Your task to perform on an android device: stop showing notifications on the lock screen Image 0: 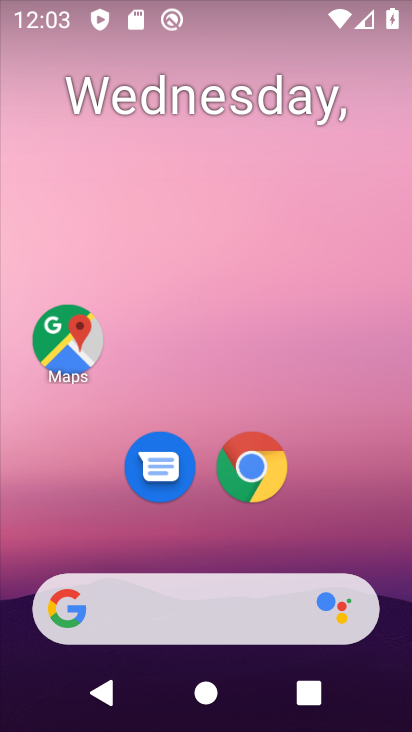
Step 0: drag from (220, 536) to (270, 58)
Your task to perform on an android device: stop showing notifications on the lock screen Image 1: 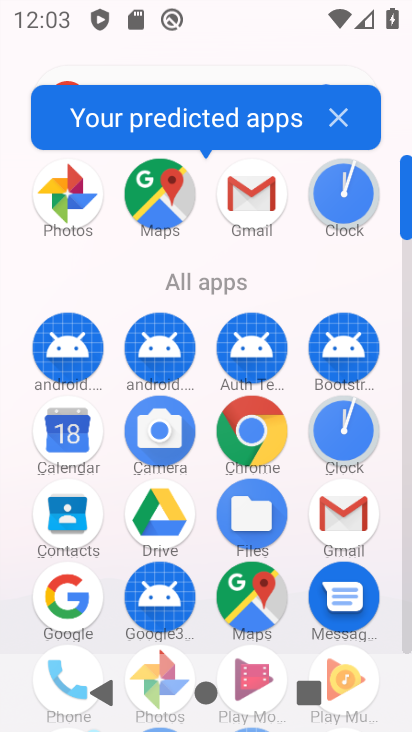
Step 1: drag from (242, 587) to (267, 214)
Your task to perform on an android device: stop showing notifications on the lock screen Image 2: 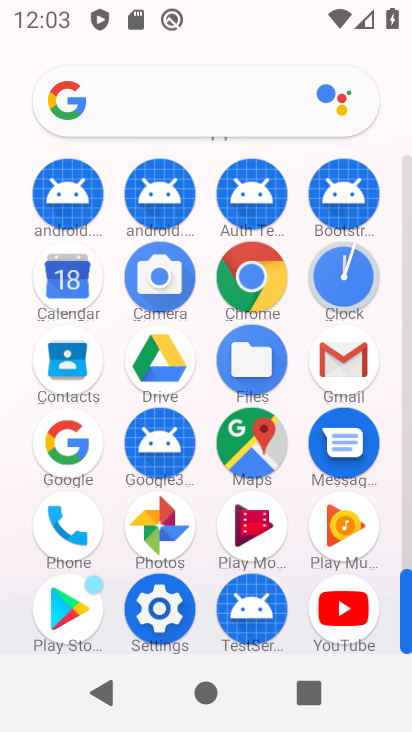
Step 2: click (164, 618)
Your task to perform on an android device: stop showing notifications on the lock screen Image 3: 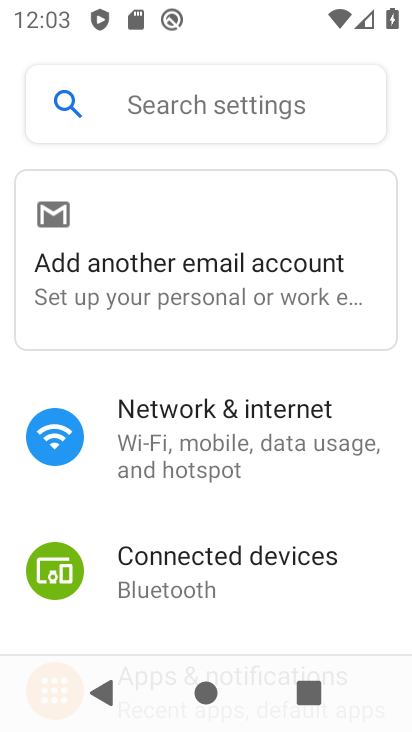
Step 3: drag from (222, 557) to (260, 261)
Your task to perform on an android device: stop showing notifications on the lock screen Image 4: 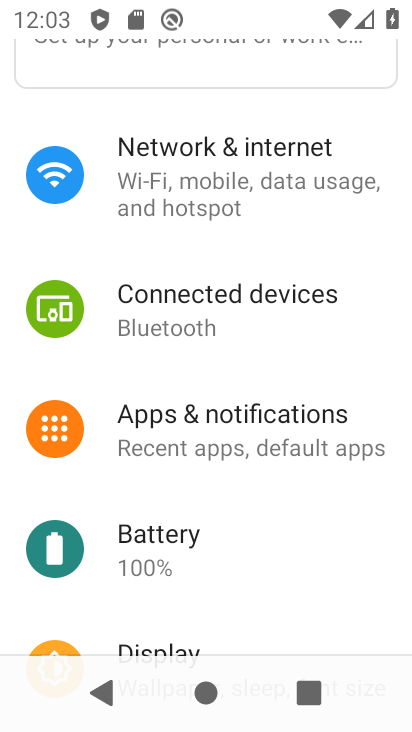
Step 4: click (208, 414)
Your task to perform on an android device: stop showing notifications on the lock screen Image 5: 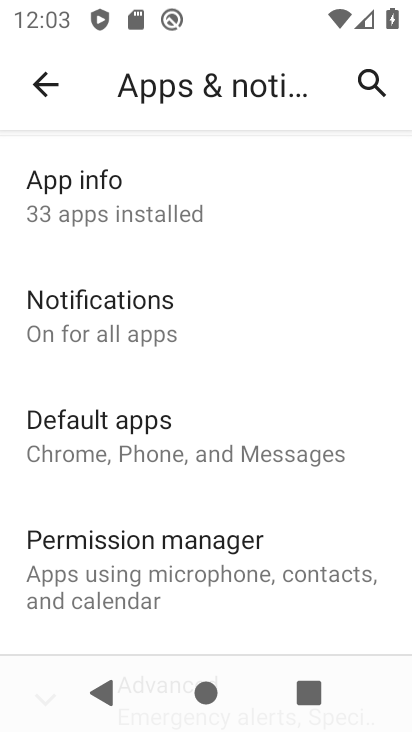
Step 5: drag from (150, 233) to (113, 499)
Your task to perform on an android device: stop showing notifications on the lock screen Image 6: 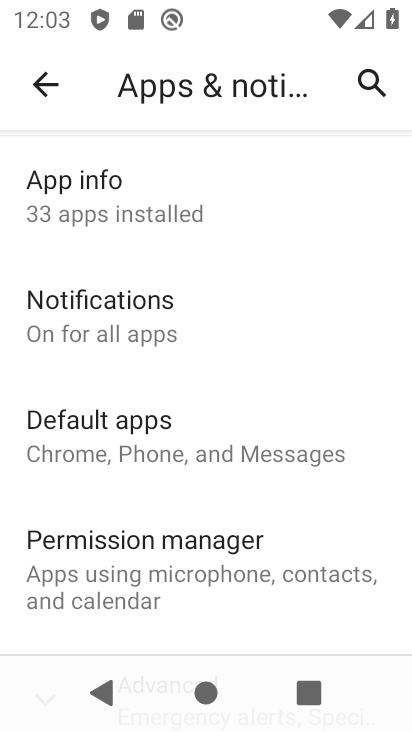
Step 6: drag from (130, 525) to (169, 292)
Your task to perform on an android device: stop showing notifications on the lock screen Image 7: 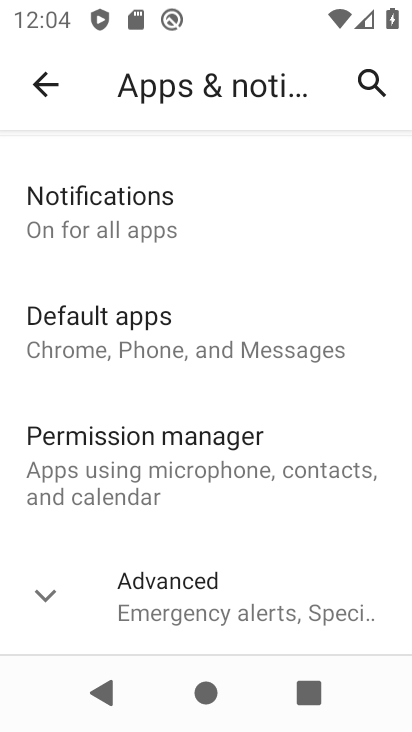
Step 7: click (165, 234)
Your task to perform on an android device: stop showing notifications on the lock screen Image 8: 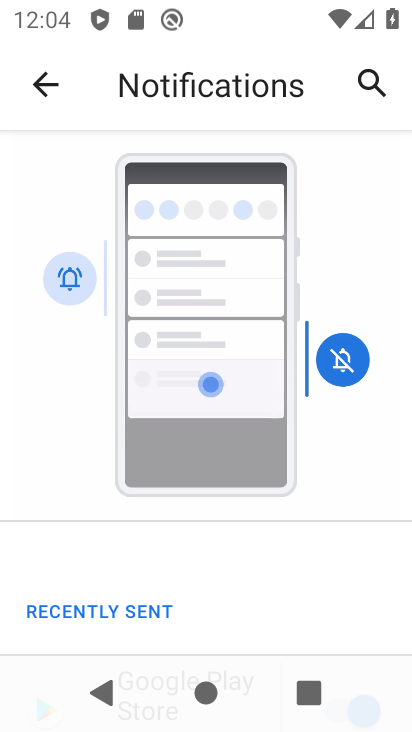
Step 8: drag from (208, 571) to (269, 42)
Your task to perform on an android device: stop showing notifications on the lock screen Image 9: 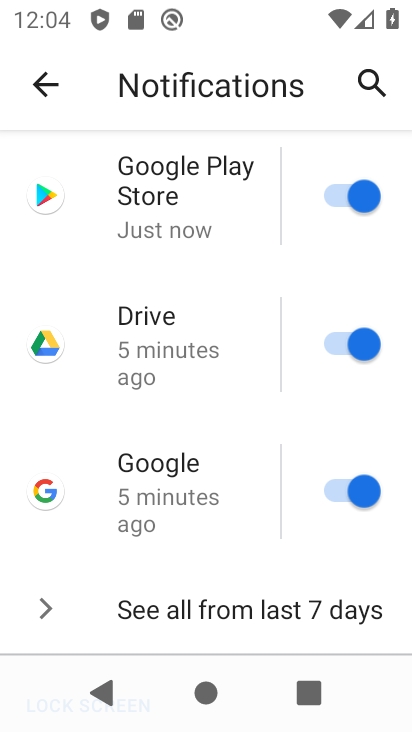
Step 9: drag from (233, 530) to (253, 275)
Your task to perform on an android device: stop showing notifications on the lock screen Image 10: 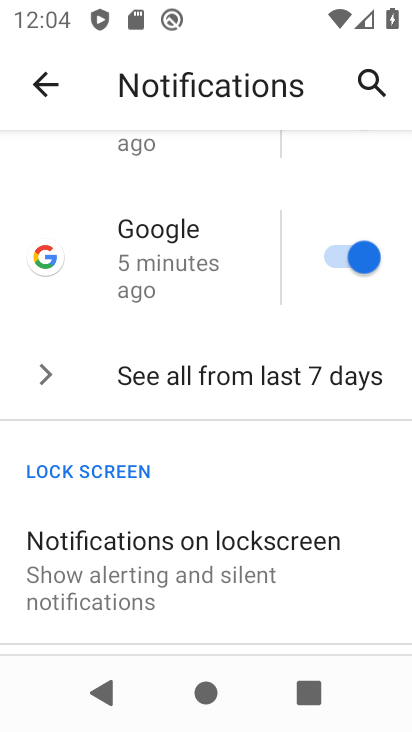
Step 10: click (174, 582)
Your task to perform on an android device: stop showing notifications on the lock screen Image 11: 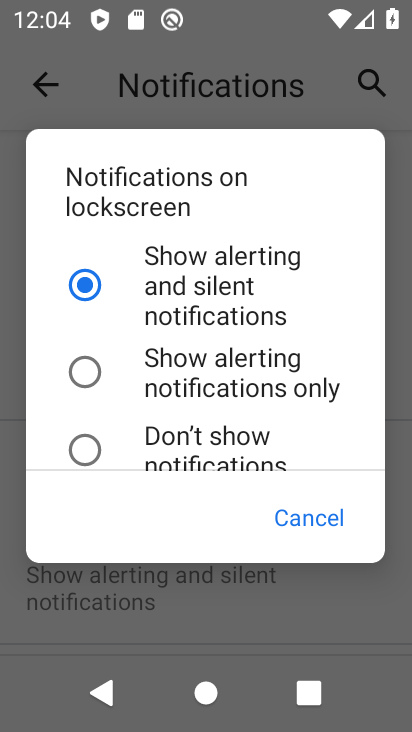
Step 11: click (85, 444)
Your task to perform on an android device: stop showing notifications on the lock screen Image 12: 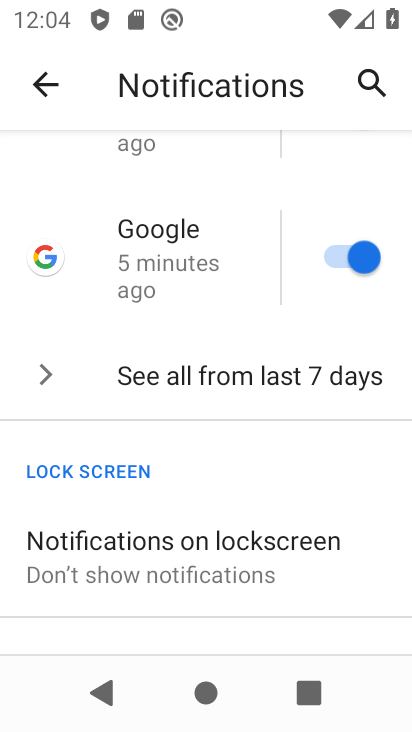
Step 12: task complete